Your task to perform on an android device: Open ESPN.com Image 0: 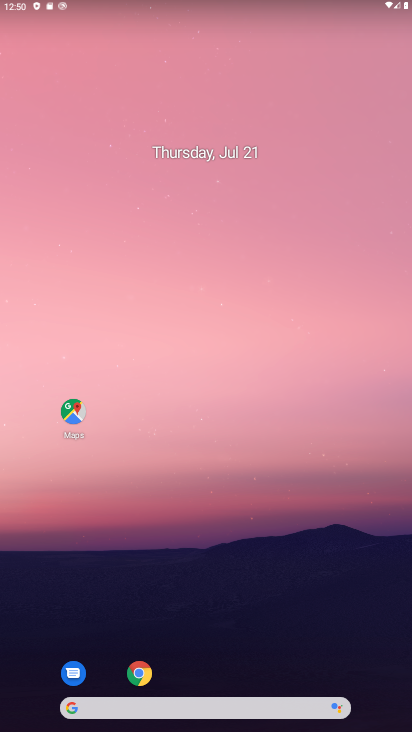
Step 0: drag from (209, 700) to (213, 209)
Your task to perform on an android device: Open ESPN.com Image 1: 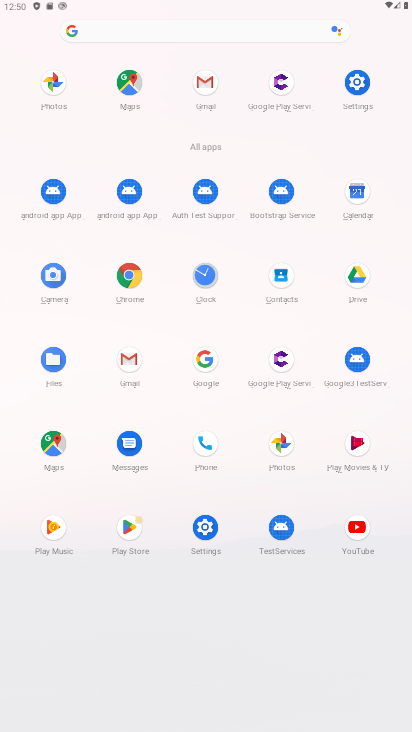
Step 1: click (134, 285)
Your task to perform on an android device: Open ESPN.com Image 2: 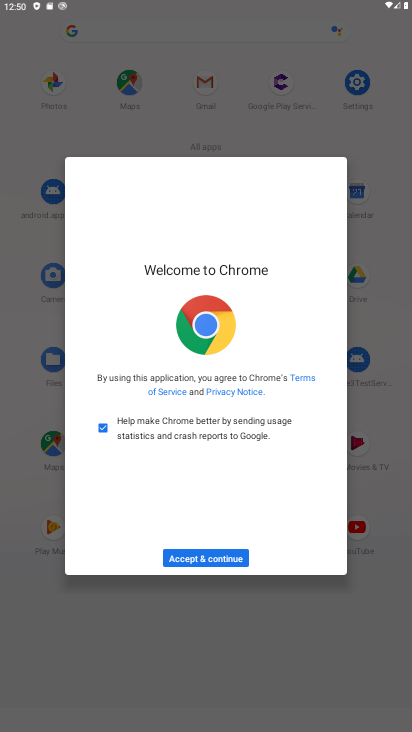
Step 2: click (194, 552)
Your task to perform on an android device: Open ESPN.com Image 3: 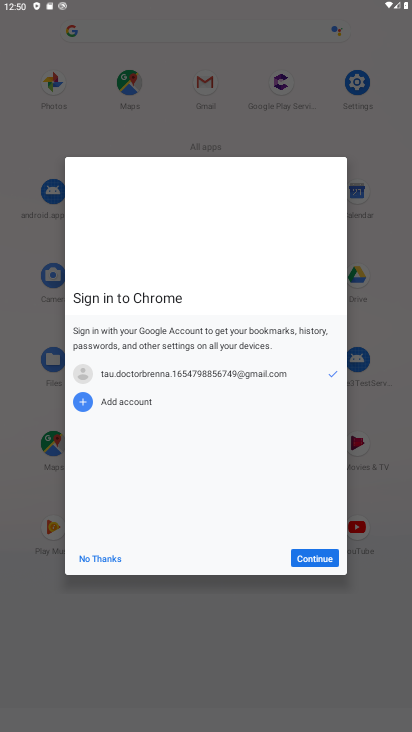
Step 3: click (305, 555)
Your task to perform on an android device: Open ESPN.com Image 4: 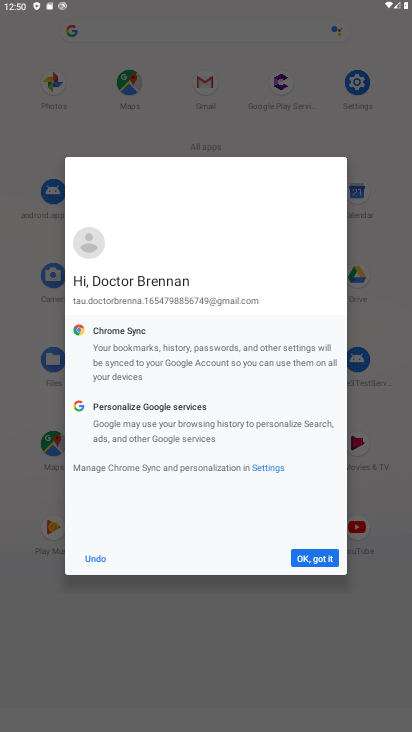
Step 4: click (319, 558)
Your task to perform on an android device: Open ESPN.com Image 5: 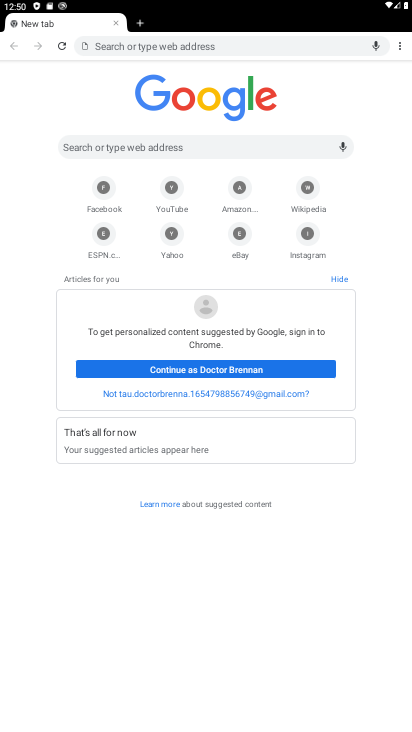
Step 5: click (163, 46)
Your task to perform on an android device: Open ESPN.com Image 6: 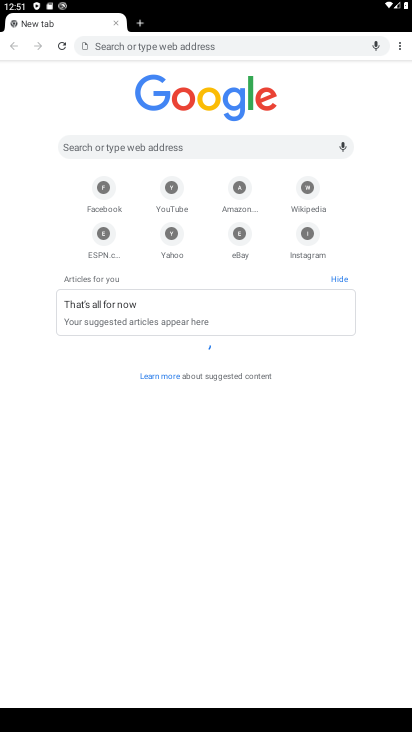
Step 6: click (105, 240)
Your task to perform on an android device: Open ESPN.com Image 7: 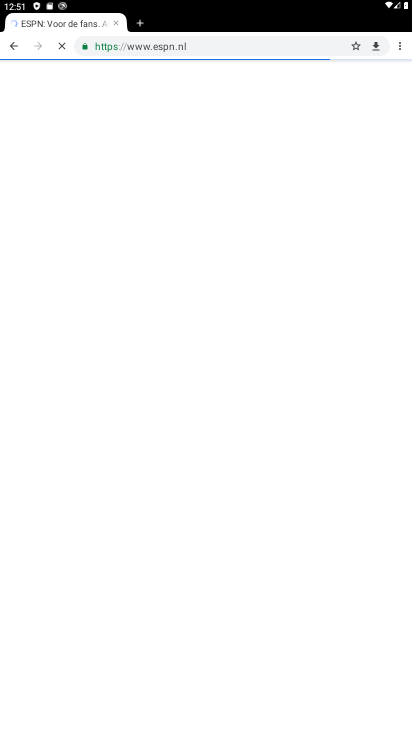
Step 7: task complete